Your task to perform on an android device: Open Chrome and go to settings Image 0: 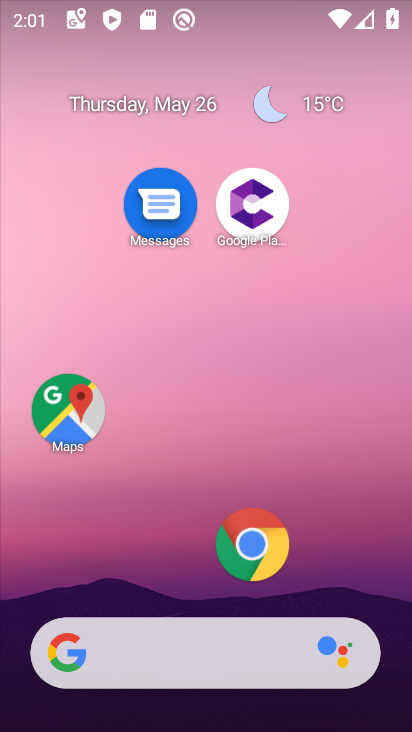
Step 0: click (255, 537)
Your task to perform on an android device: Open Chrome and go to settings Image 1: 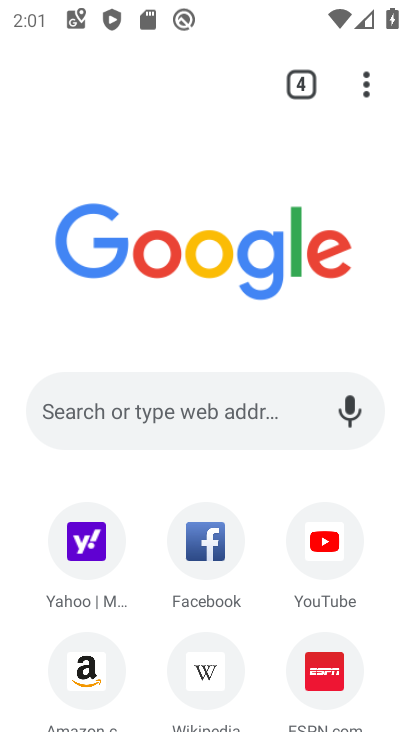
Step 1: click (387, 78)
Your task to perform on an android device: Open Chrome and go to settings Image 2: 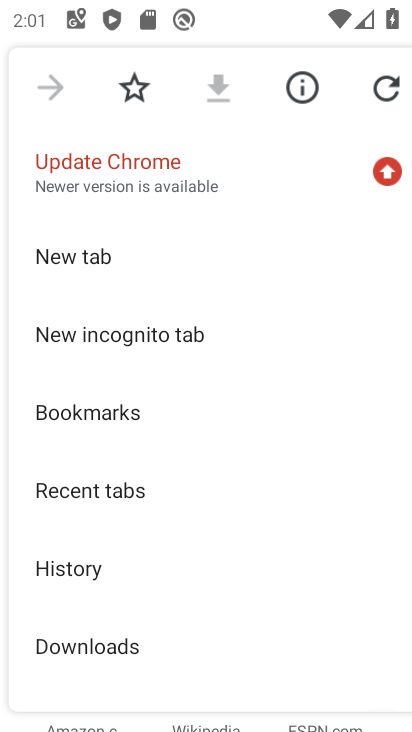
Step 2: drag from (179, 590) to (167, 231)
Your task to perform on an android device: Open Chrome and go to settings Image 3: 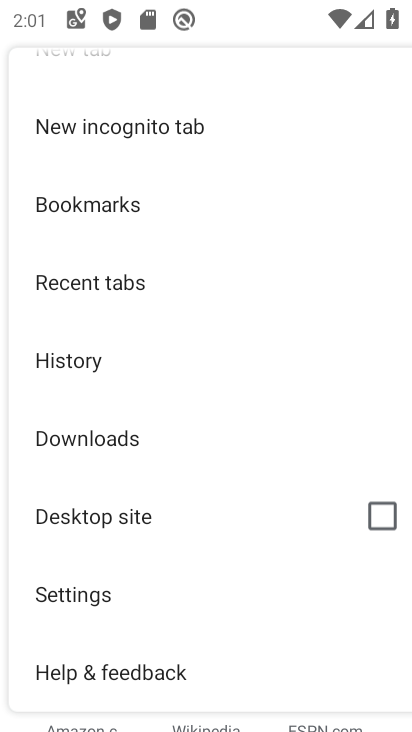
Step 3: click (131, 615)
Your task to perform on an android device: Open Chrome and go to settings Image 4: 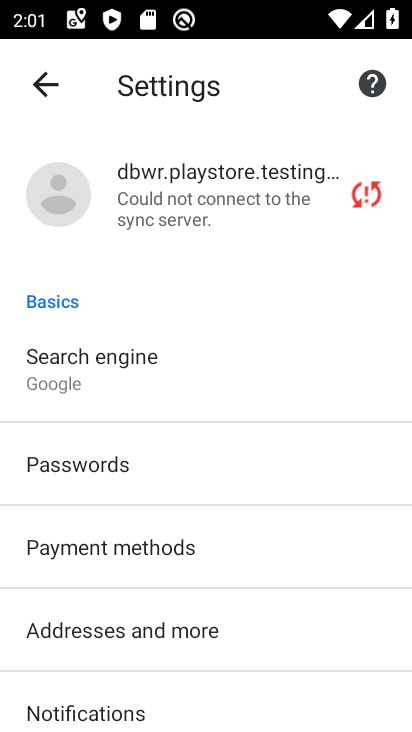
Step 4: task complete